Your task to perform on an android device: Open the stopwatch Image 0: 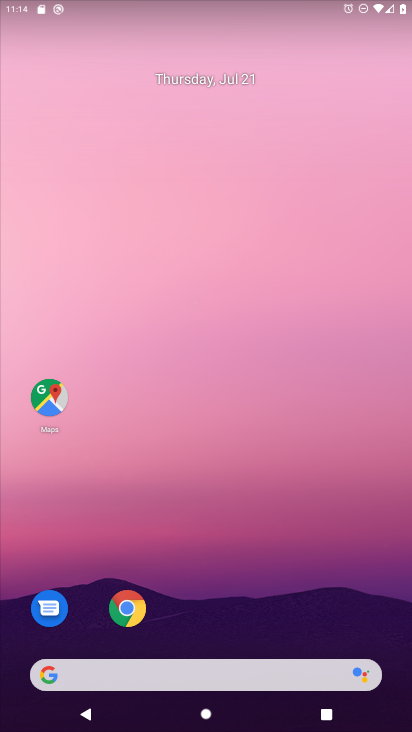
Step 0: drag from (401, 655) to (219, 66)
Your task to perform on an android device: Open the stopwatch Image 1: 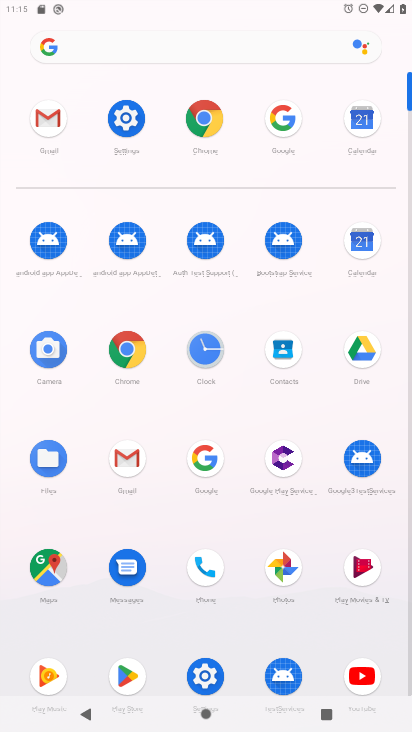
Step 1: click (207, 353)
Your task to perform on an android device: Open the stopwatch Image 2: 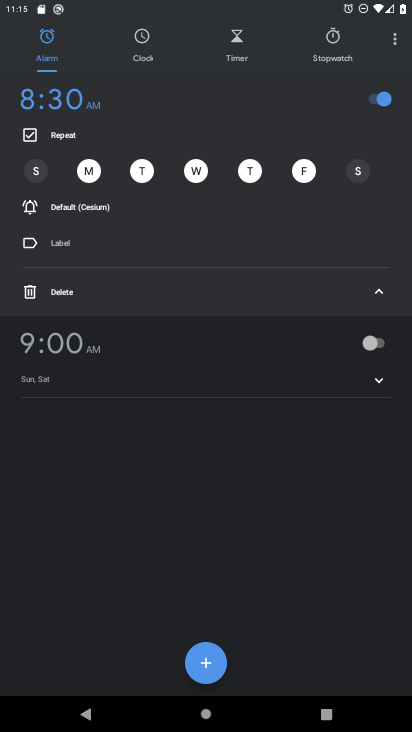
Step 2: click (323, 43)
Your task to perform on an android device: Open the stopwatch Image 3: 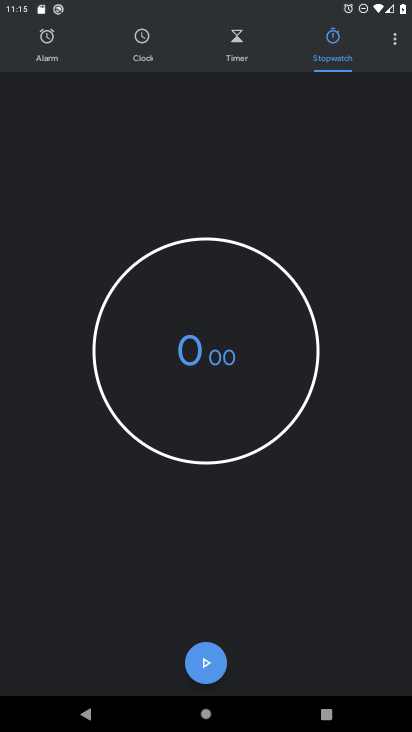
Step 3: task complete